Your task to perform on an android device: What's the weather going to be this weekend? Image 0: 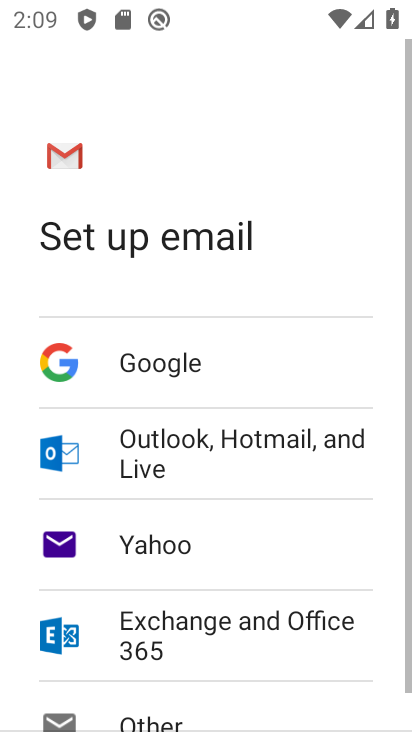
Step 0: press home button
Your task to perform on an android device: What's the weather going to be this weekend? Image 1: 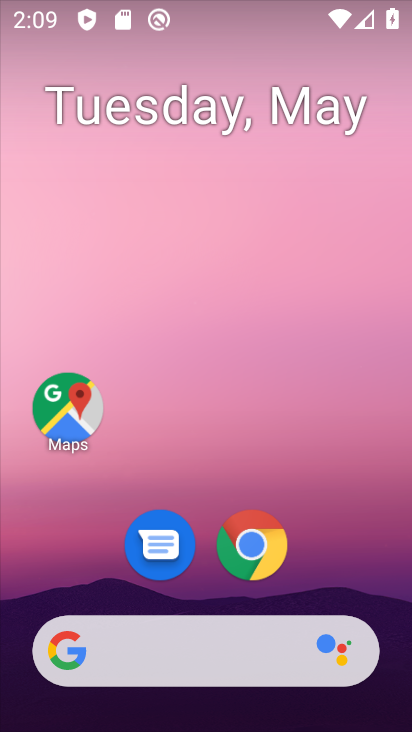
Step 1: click (156, 656)
Your task to perform on an android device: What's the weather going to be this weekend? Image 2: 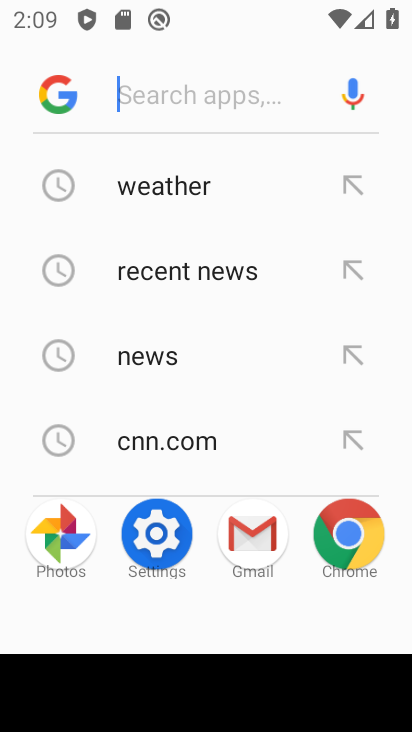
Step 2: type "What's the weather going to be this weekend?"
Your task to perform on an android device: What's the weather going to be this weekend? Image 3: 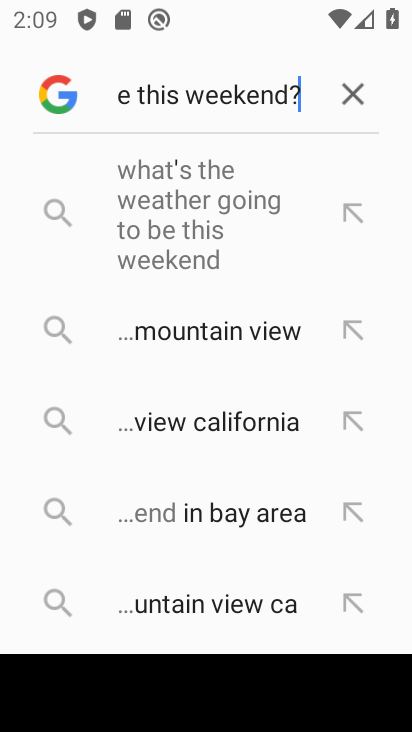
Step 3: click (206, 253)
Your task to perform on an android device: What's the weather going to be this weekend? Image 4: 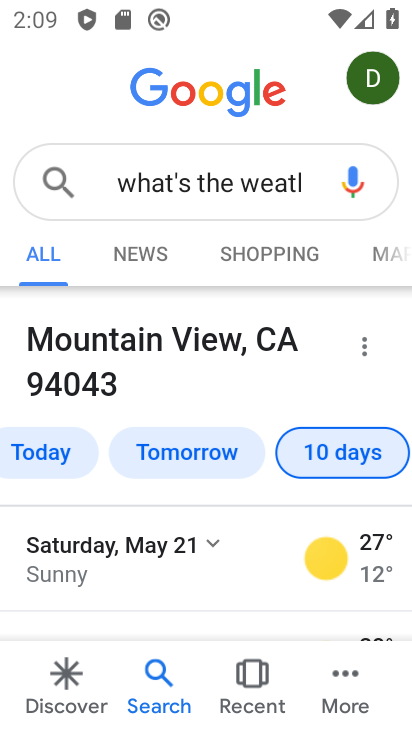
Step 4: task complete